Your task to perform on an android device: change alarm snooze length Image 0: 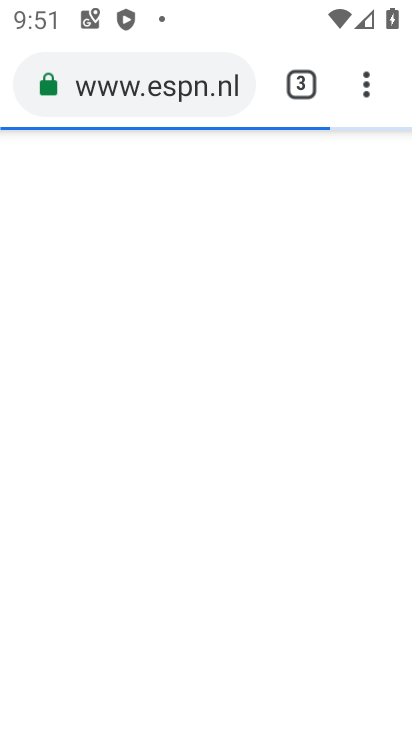
Step 0: press home button
Your task to perform on an android device: change alarm snooze length Image 1: 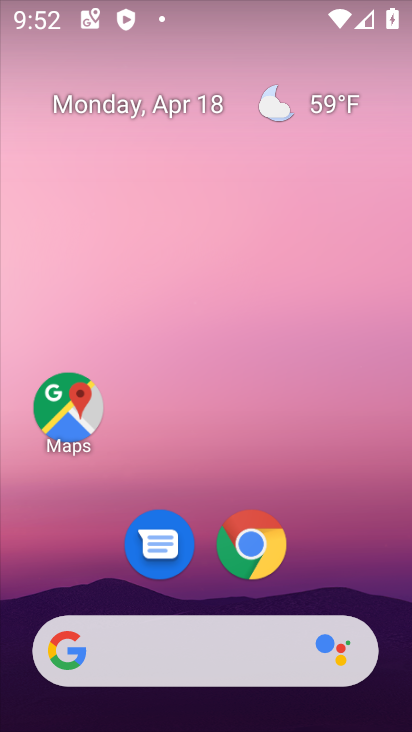
Step 1: drag from (318, 490) to (340, 191)
Your task to perform on an android device: change alarm snooze length Image 2: 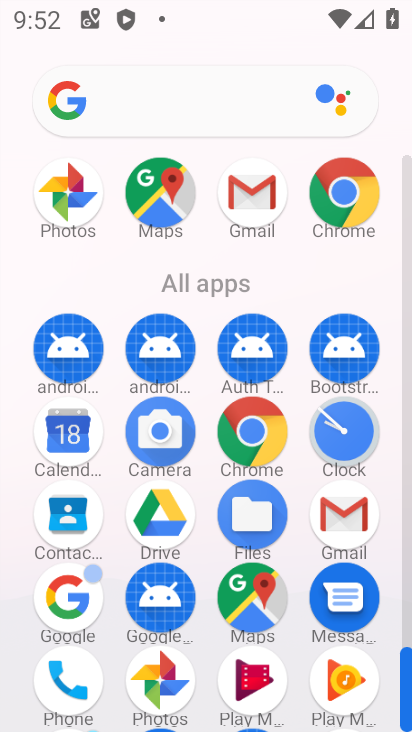
Step 2: click (341, 442)
Your task to perform on an android device: change alarm snooze length Image 3: 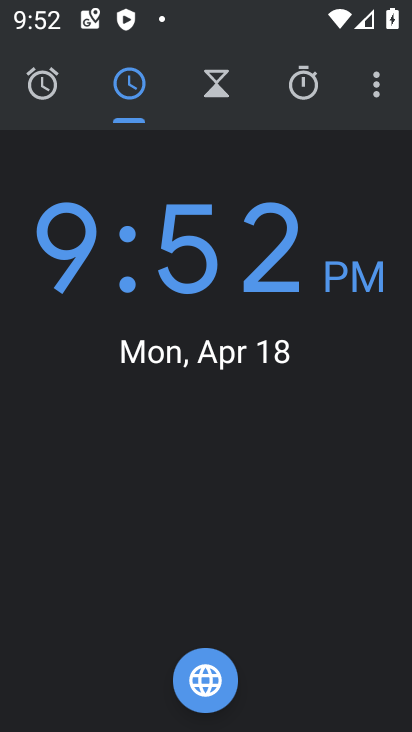
Step 3: click (375, 77)
Your task to perform on an android device: change alarm snooze length Image 4: 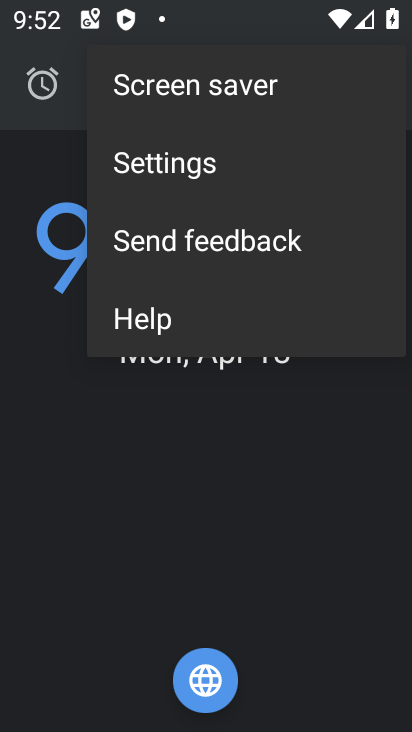
Step 4: click (217, 156)
Your task to perform on an android device: change alarm snooze length Image 5: 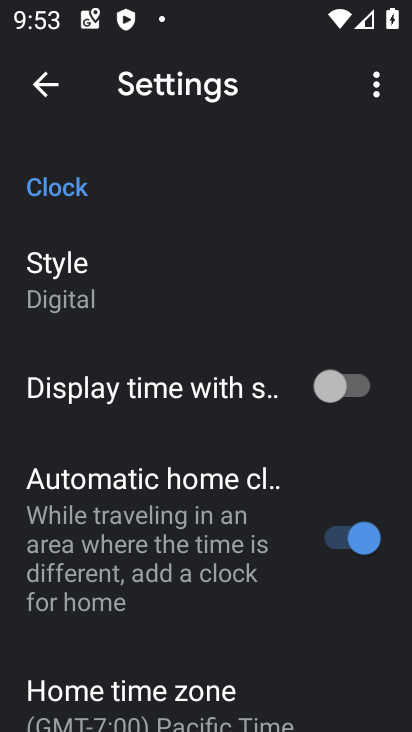
Step 5: drag from (185, 529) to (291, 101)
Your task to perform on an android device: change alarm snooze length Image 6: 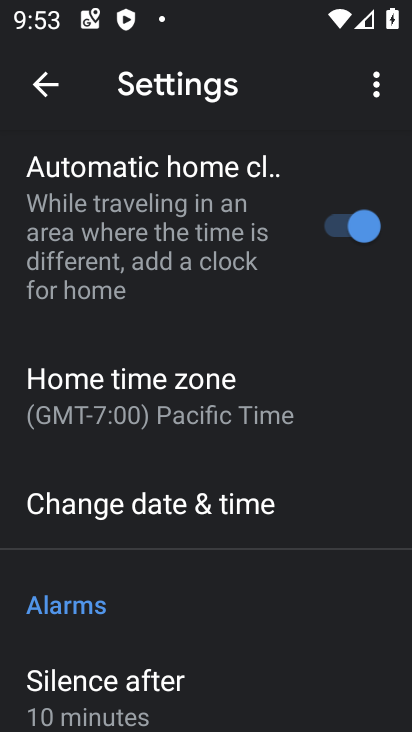
Step 6: drag from (169, 591) to (276, 113)
Your task to perform on an android device: change alarm snooze length Image 7: 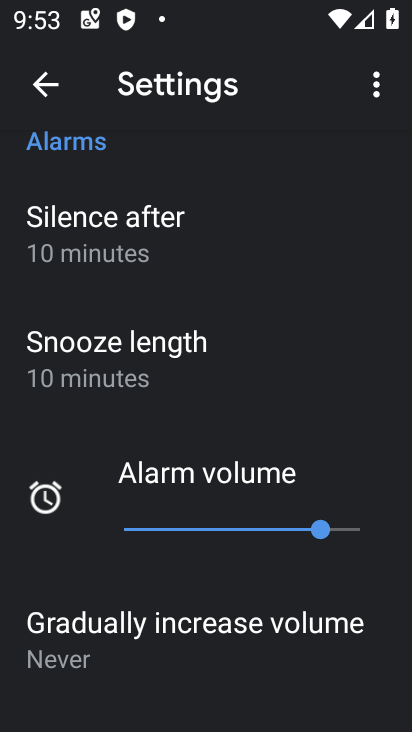
Step 7: click (159, 354)
Your task to perform on an android device: change alarm snooze length Image 8: 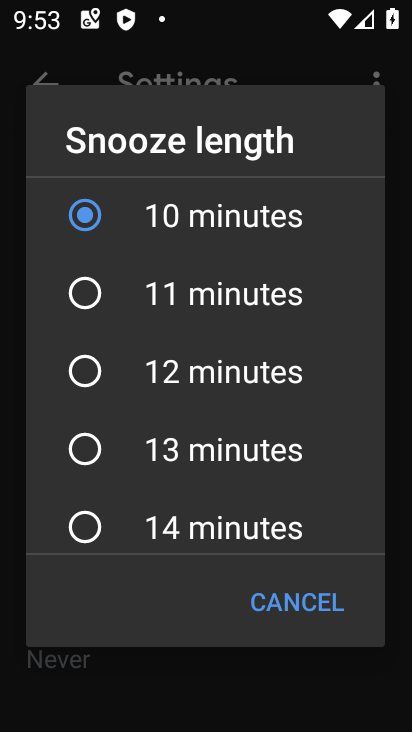
Step 8: drag from (262, 402) to (286, 214)
Your task to perform on an android device: change alarm snooze length Image 9: 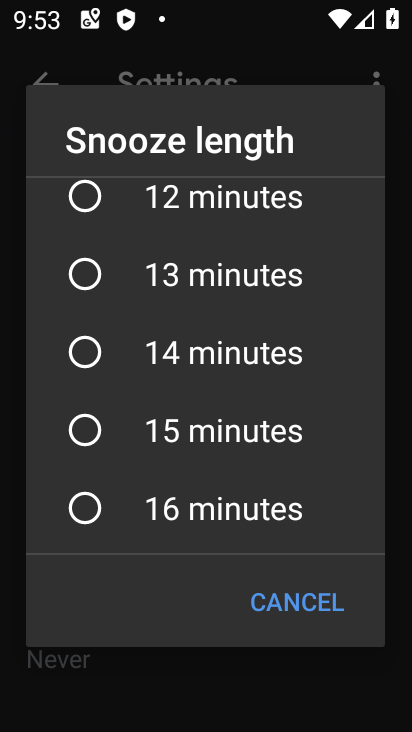
Step 9: click (237, 415)
Your task to perform on an android device: change alarm snooze length Image 10: 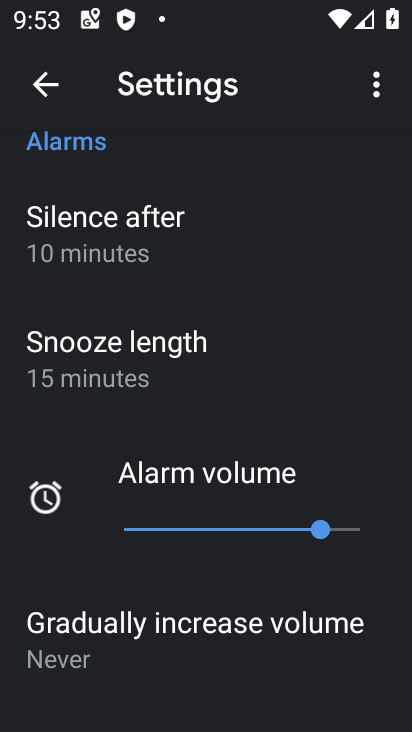
Step 10: task complete